Your task to perform on an android device: toggle airplane mode Image 0: 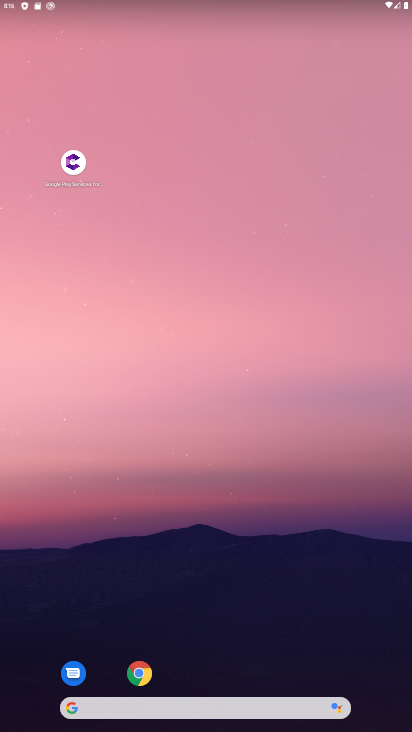
Step 0: drag from (348, 4) to (250, 544)
Your task to perform on an android device: toggle airplane mode Image 1: 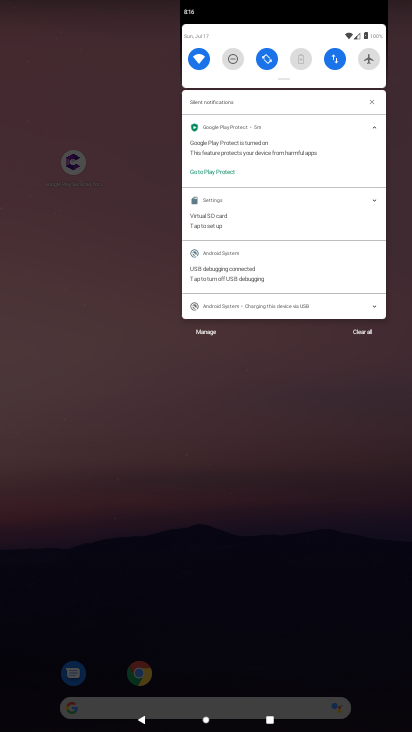
Step 1: click (370, 51)
Your task to perform on an android device: toggle airplane mode Image 2: 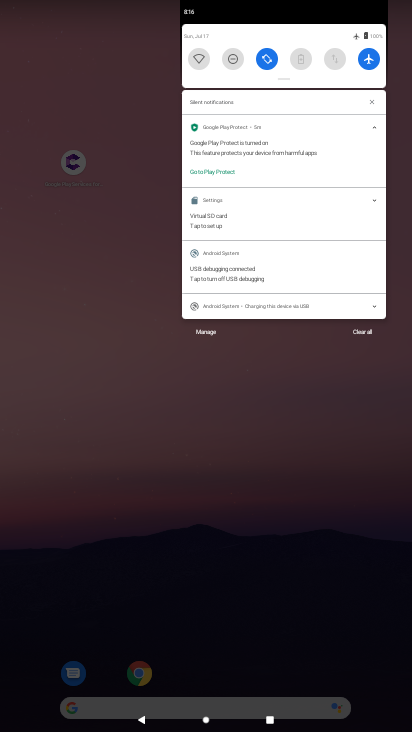
Step 2: task complete